Your task to perform on an android device: Open Chrome and go to the settings page Image 0: 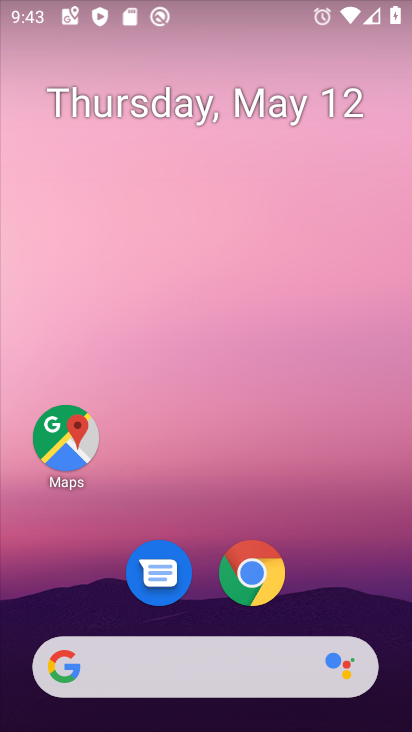
Step 0: click (250, 575)
Your task to perform on an android device: Open Chrome and go to the settings page Image 1: 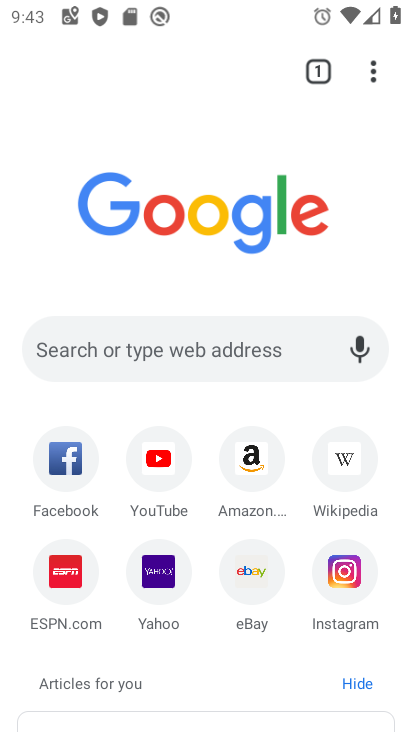
Step 1: click (372, 72)
Your task to perform on an android device: Open Chrome and go to the settings page Image 2: 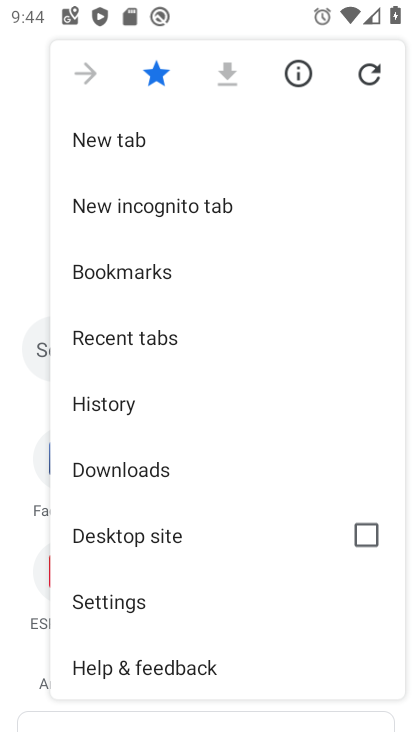
Step 2: click (137, 605)
Your task to perform on an android device: Open Chrome and go to the settings page Image 3: 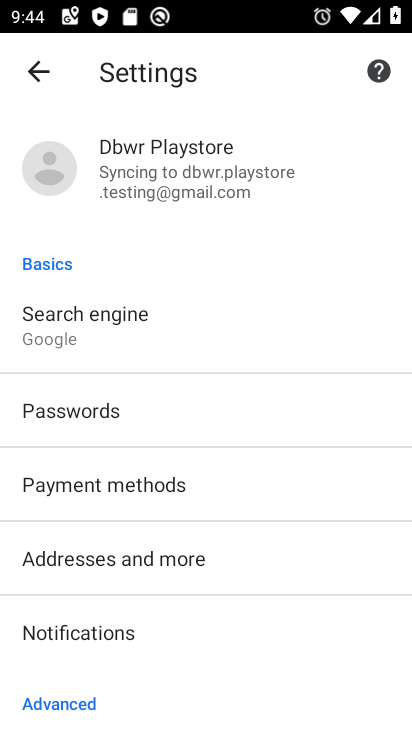
Step 3: task complete